Your task to perform on an android device: Clear the cart on ebay. Add macbook to the cart on ebay, then select checkout. Image 0: 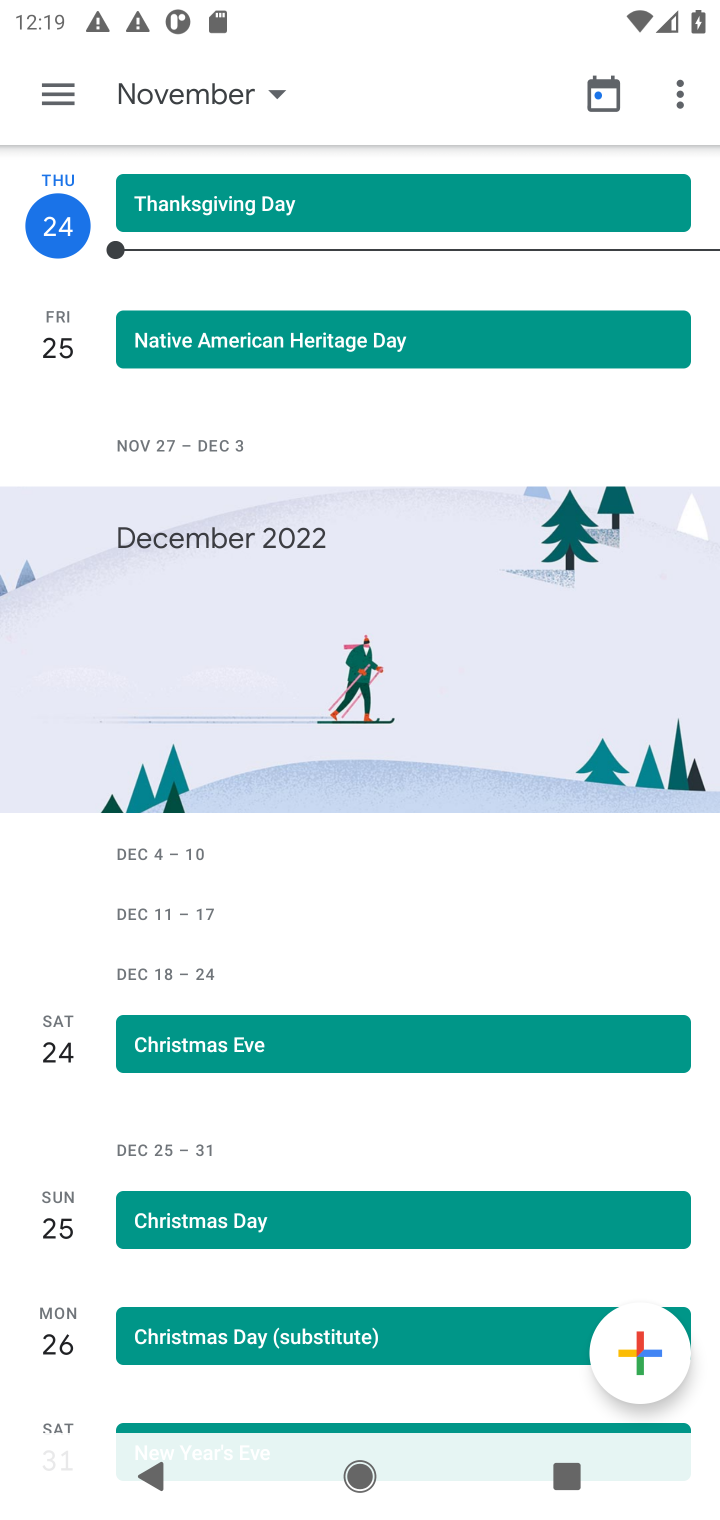
Step 0: press home button
Your task to perform on an android device: Clear the cart on ebay. Add macbook to the cart on ebay, then select checkout. Image 1: 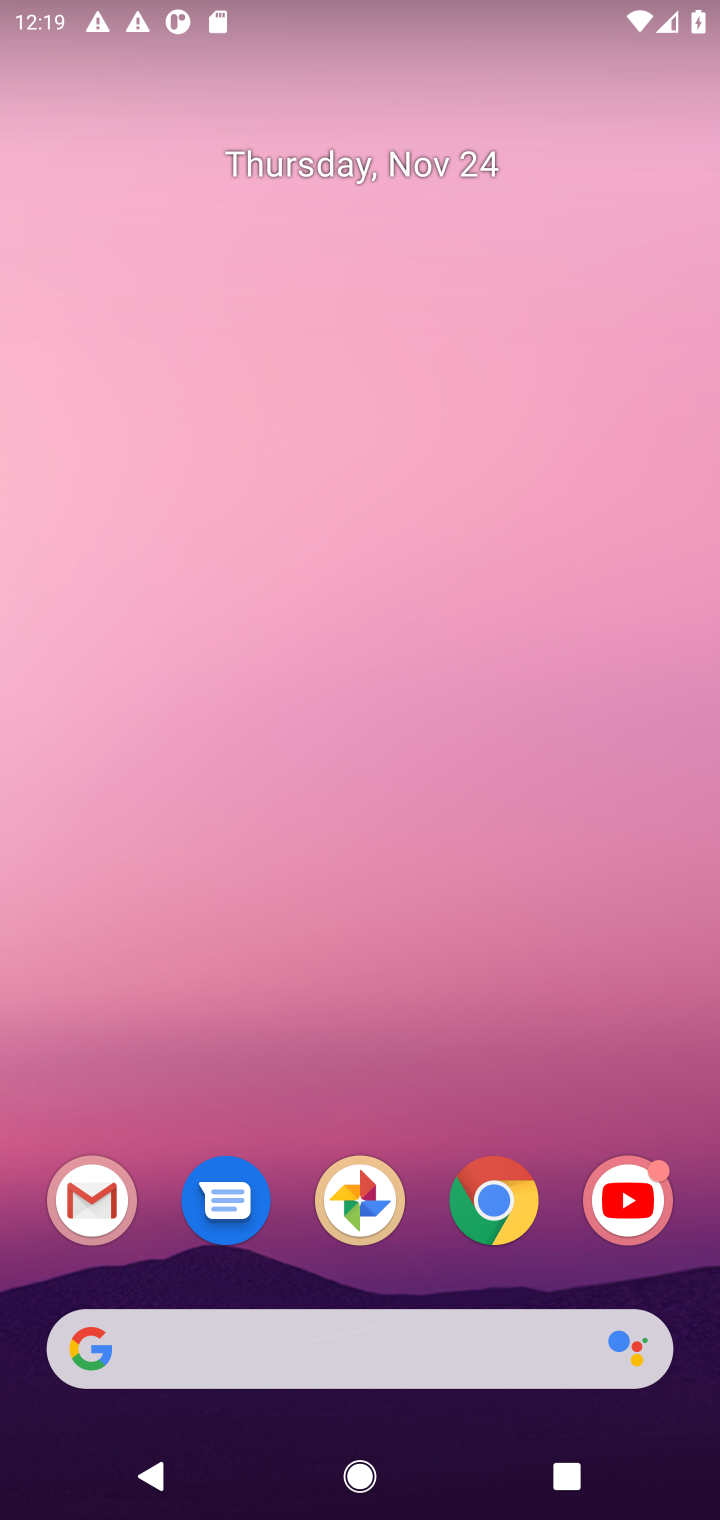
Step 1: click (510, 1342)
Your task to perform on an android device: Clear the cart on ebay. Add macbook to the cart on ebay, then select checkout. Image 2: 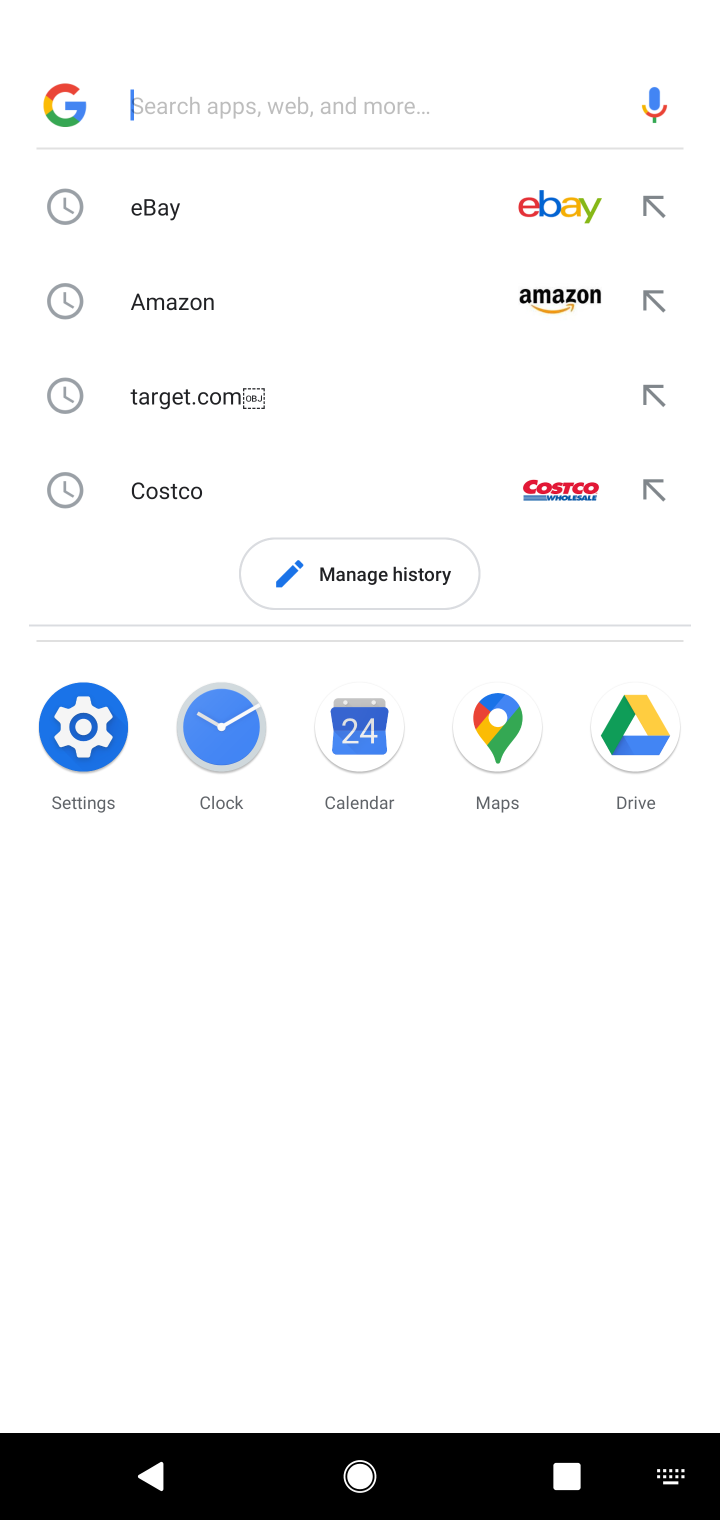
Step 2: click (433, 195)
Your task to perform on an android device: Clear the cart on ebay. Add macbook to the cart on ebay, then select checkout. Image 3: 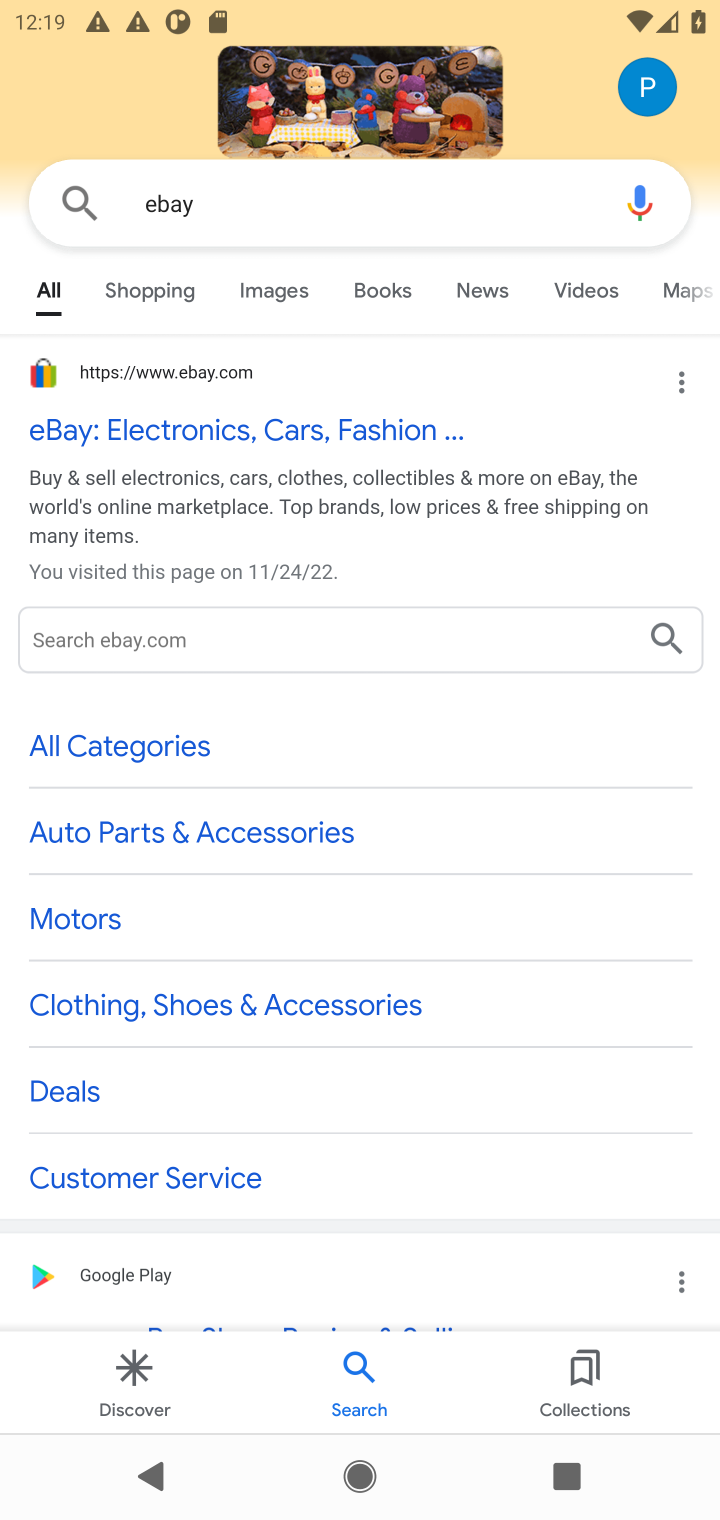
Step 3: click (320, 446)
Your task to perform on an android device: Clear the cart on ebay. Add macbook to the cart on ebay, then select checkout. Image 4: 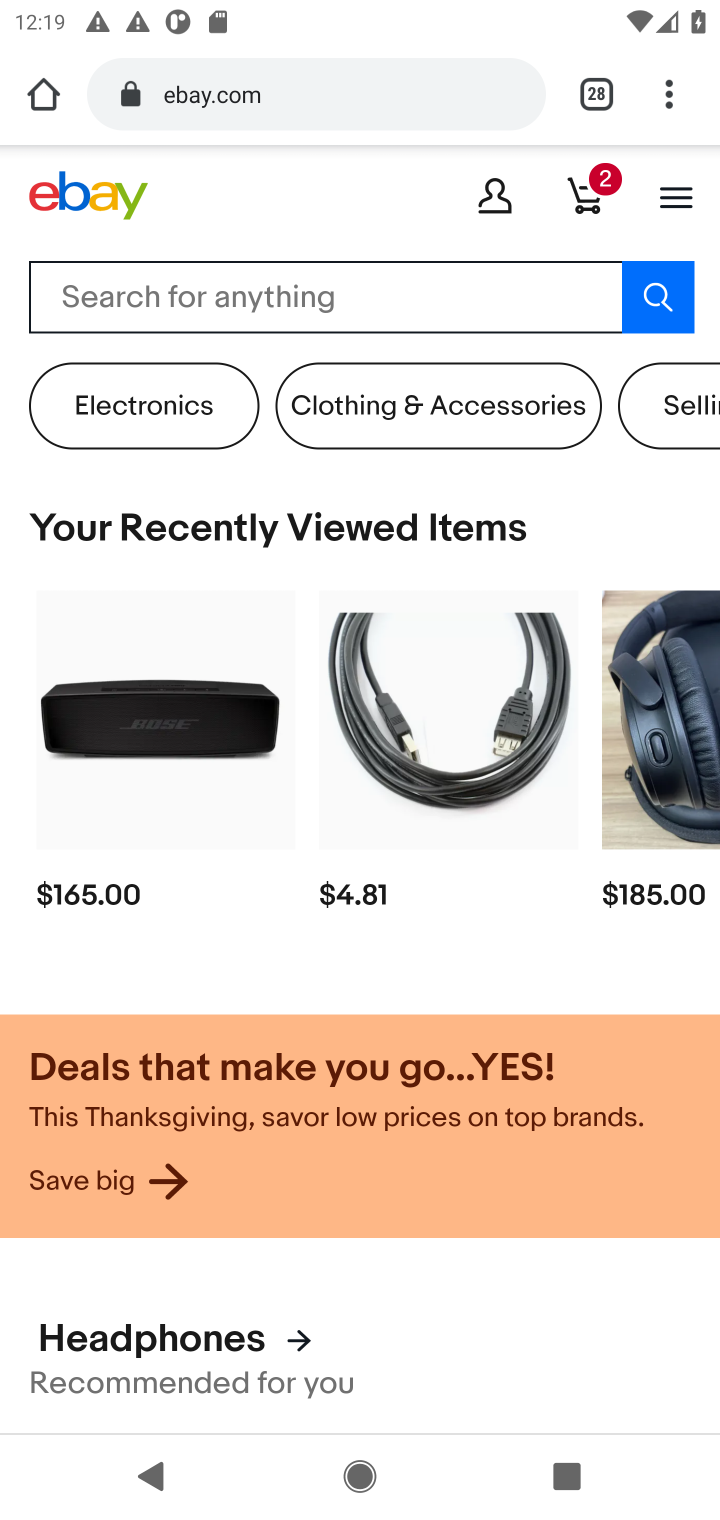
Step 4: click (494, 267)
Your task to perform on an android device: Clear the cart on ebay. Add macbook to the cart on ebay, then select checkout. Image 5: 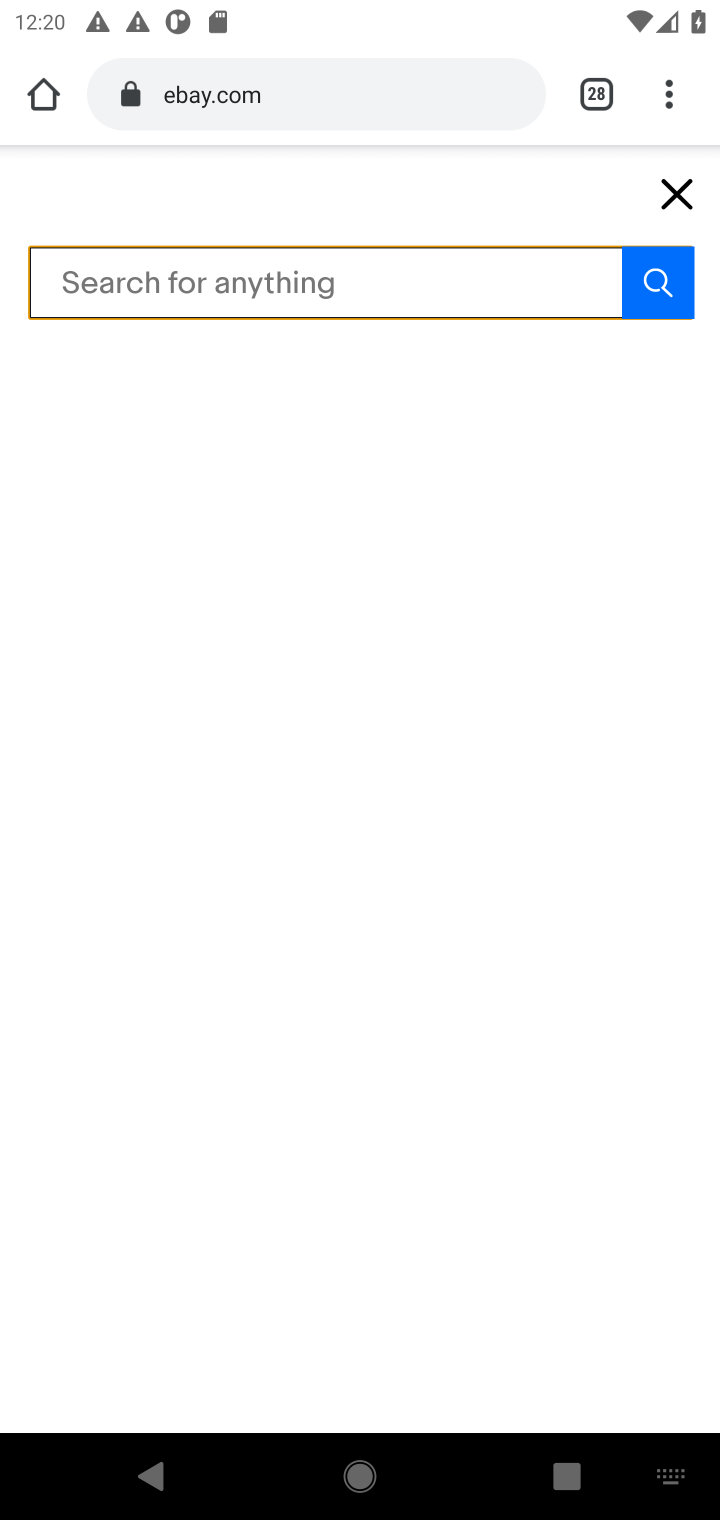
Step 5: type "macbook "
Your task to perform on an android device: Clear the cart on ebay. Add macbook to the cart on ebay, then select checkout. Image 6: 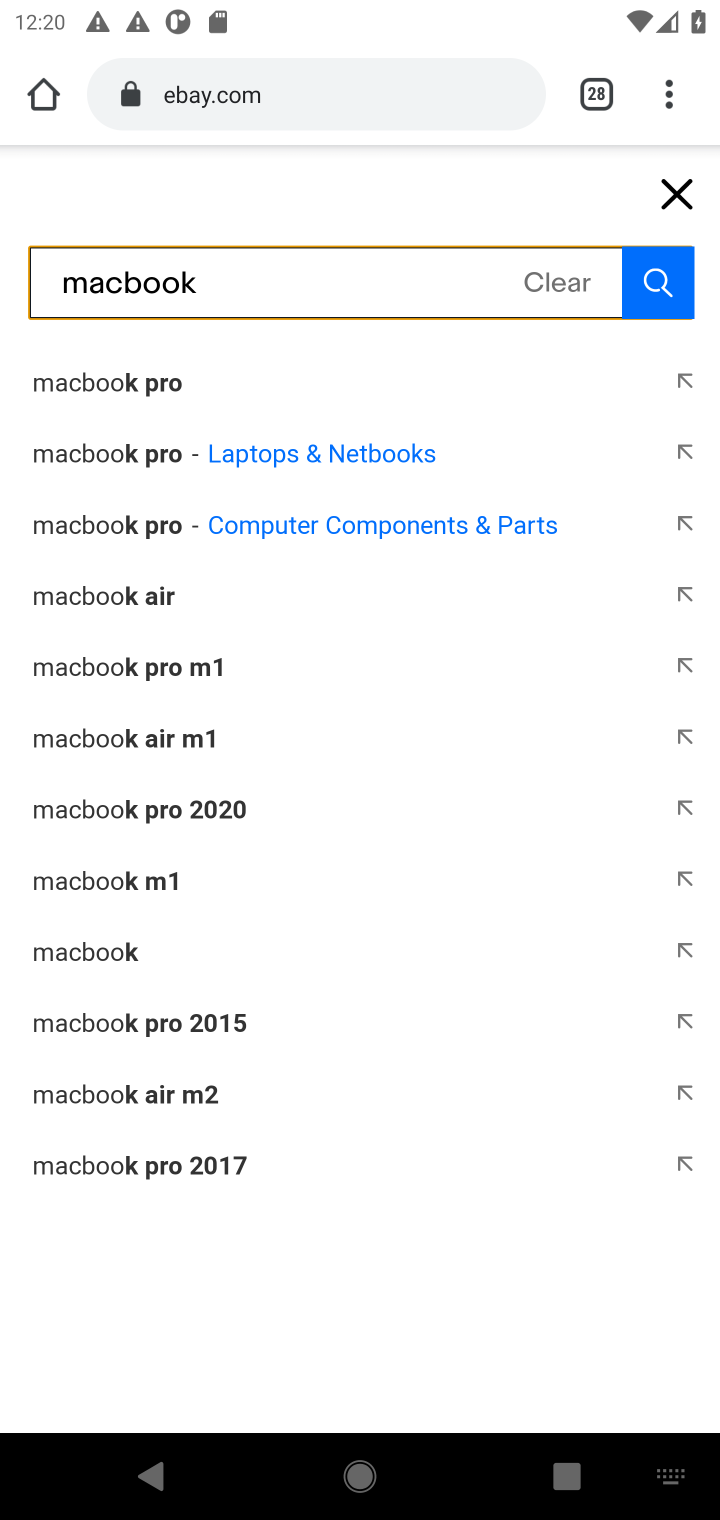
Step 6: click (157, 397)
Your task to perform on an android device: Clear the cart on ebay. Add macbook to the cart on ebay, then select checkout. Image 7: 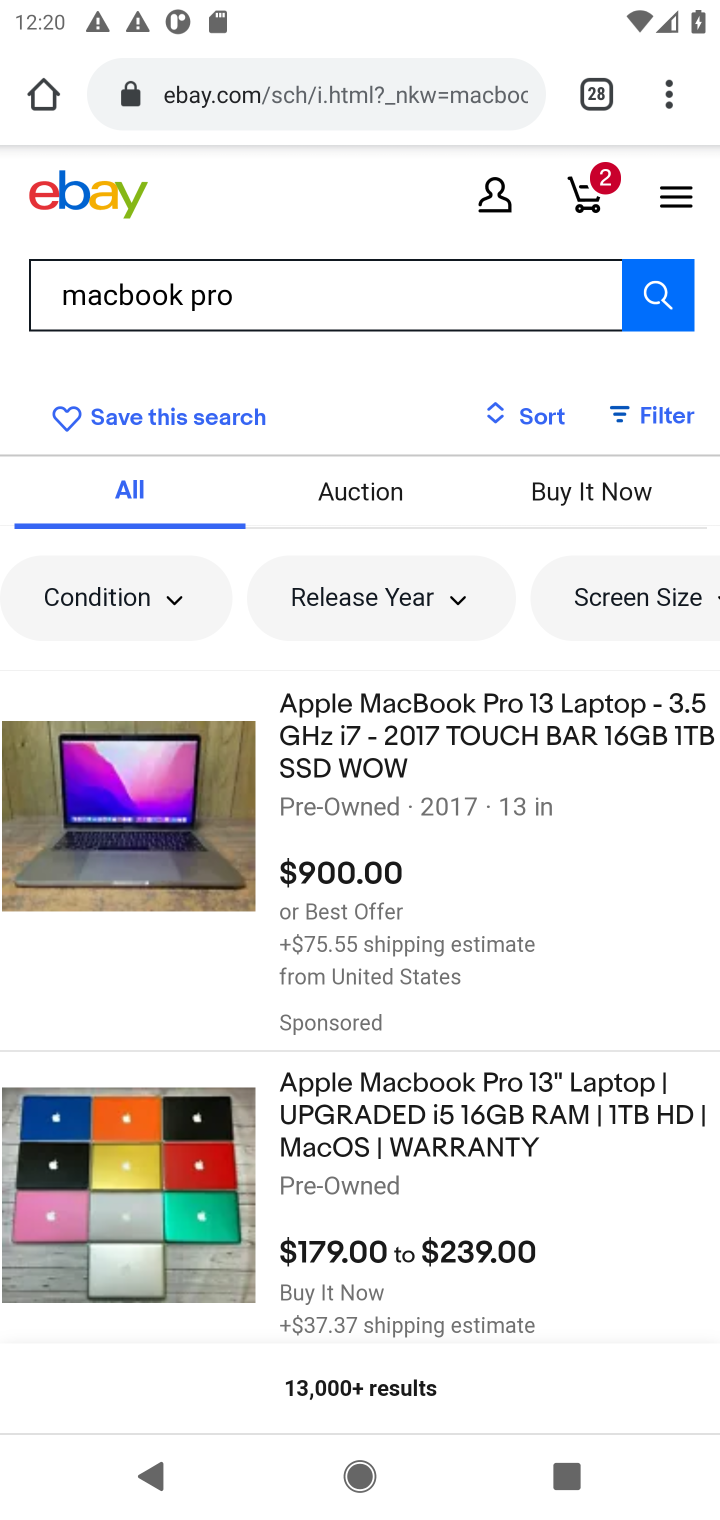
Step 7: click (402, 765)
Your task to perform on an android device: Clear the cart on ebay. Add macbook to the cart on ebay, then select checkout. Image 8: 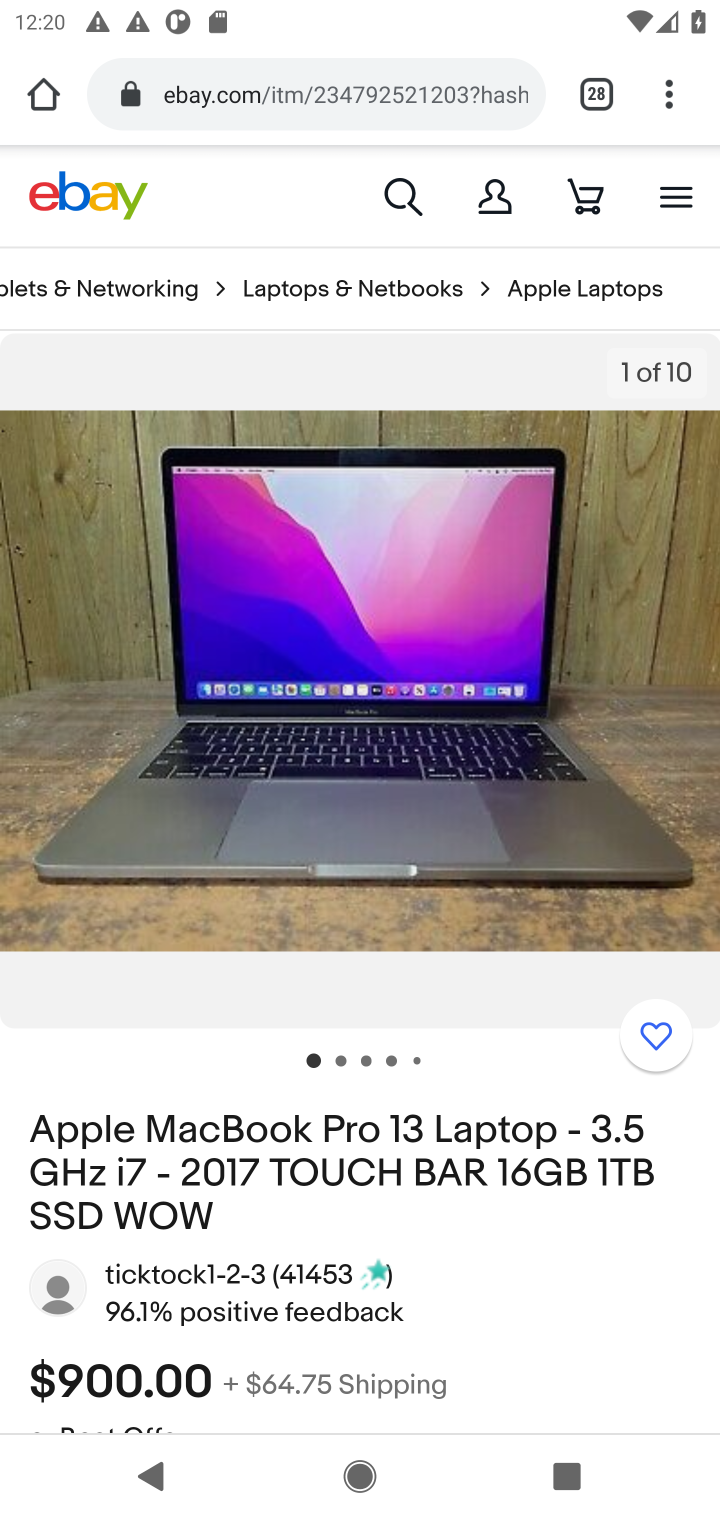
Step 8: drag from (375, 1070) to (298, 459)
Your task to perform on an android device: Clear the cart on ebay. Add macbook to the cart on ebay, then select checkout. Image 9: 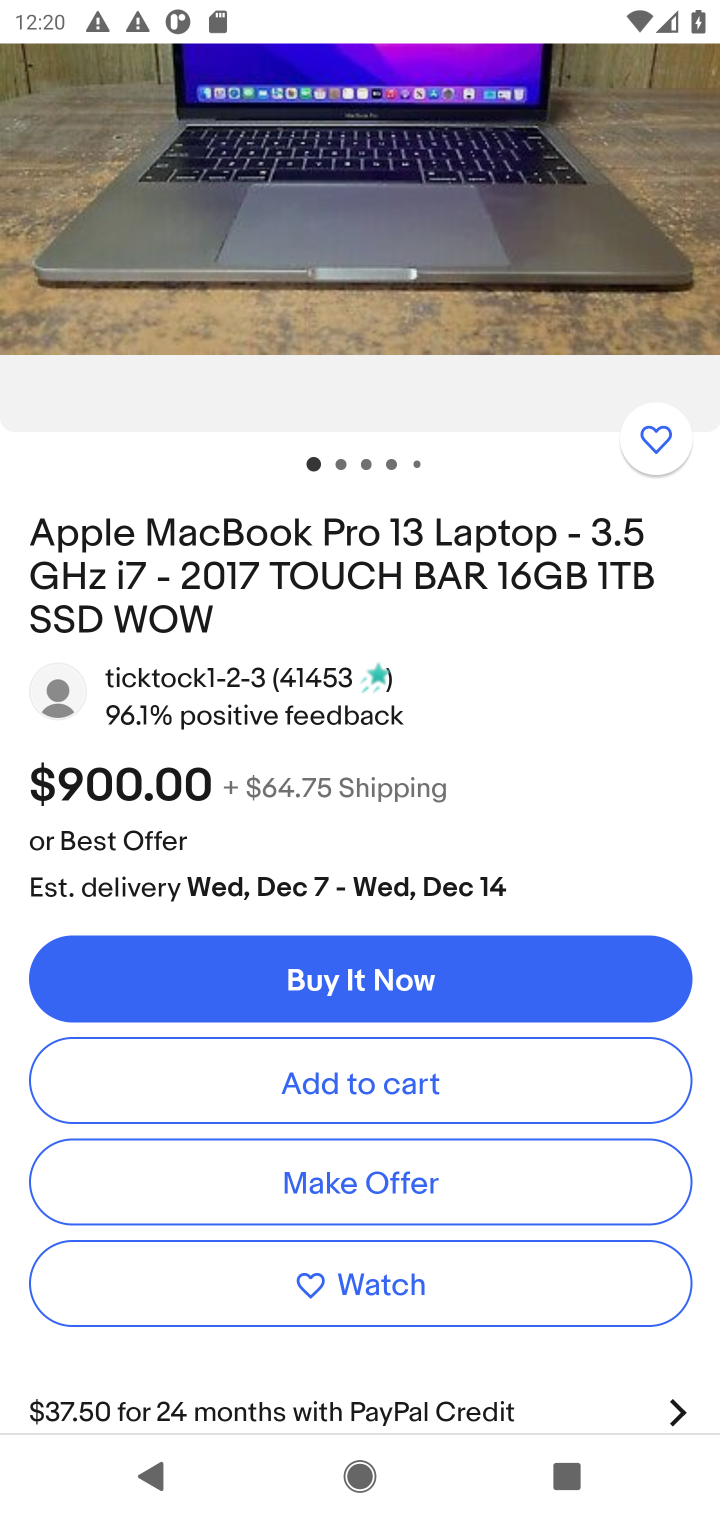
Step 9: click (394, 1093)
Your task to perform on an android device: Clear the cart on ebay. Add macbook to the cart on ebay, then select checkout. Image 10: 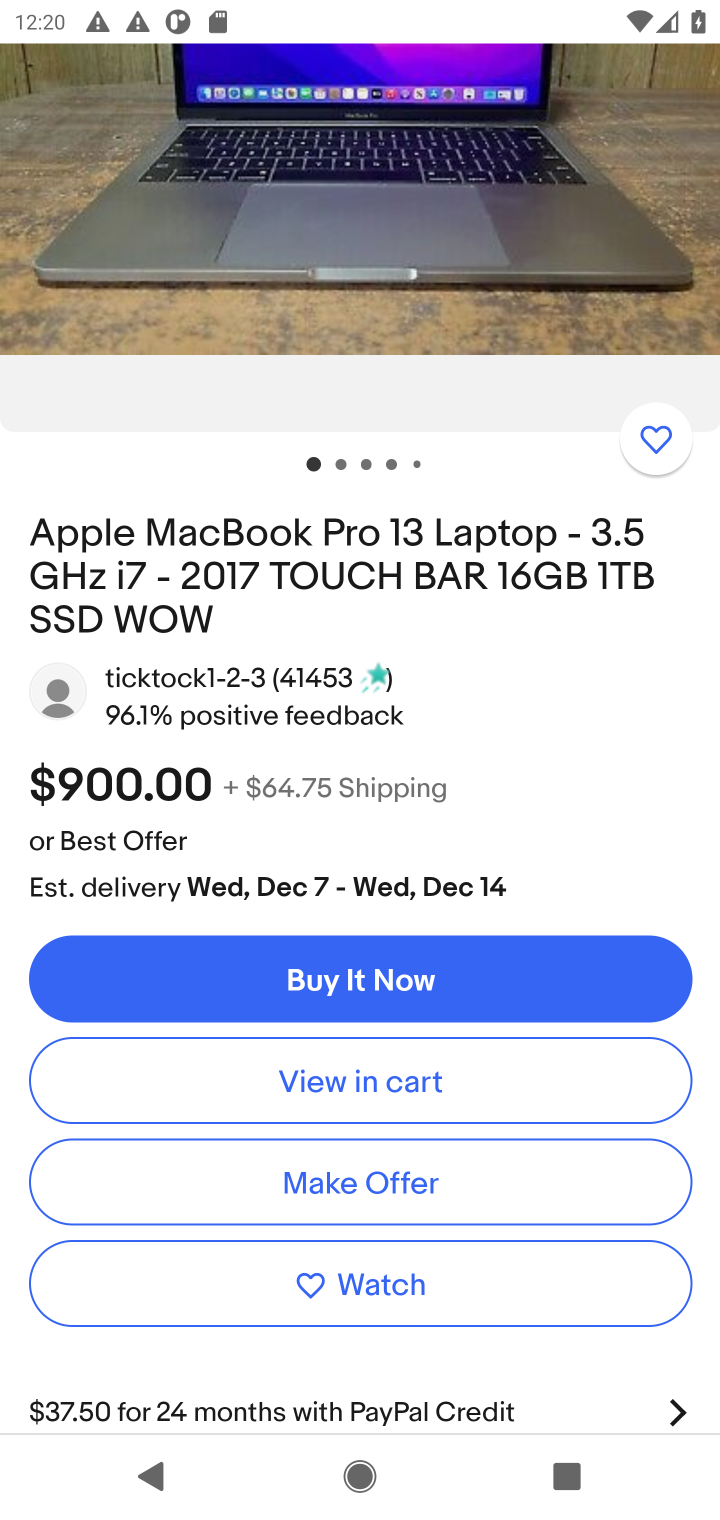
Step 10: task complete